Your task to perform on an android device: allow notifications from all sites in the chrome app Image 0: 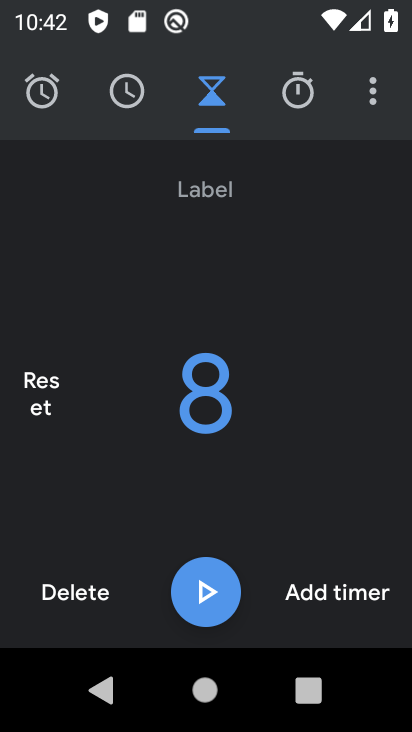
Step 0: press home button
Your task to perform on an android device: allow notifications from all sites in the chrome app Image 1: 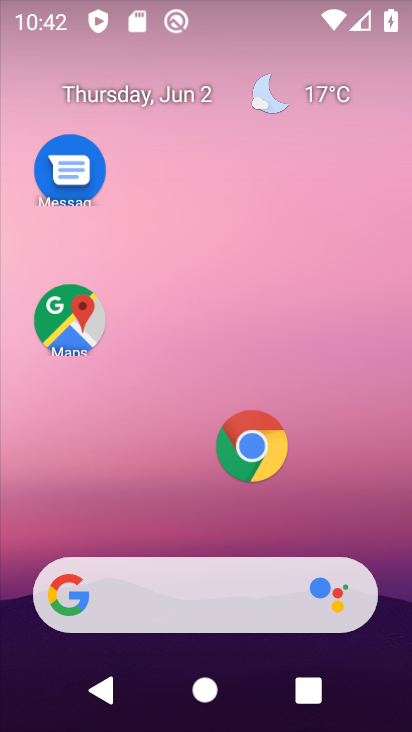
Step 1: drag from (325, 539) to (298, 109)
Your task to perform on an android device: allow notifications from all sites in the chrome app Image 2: 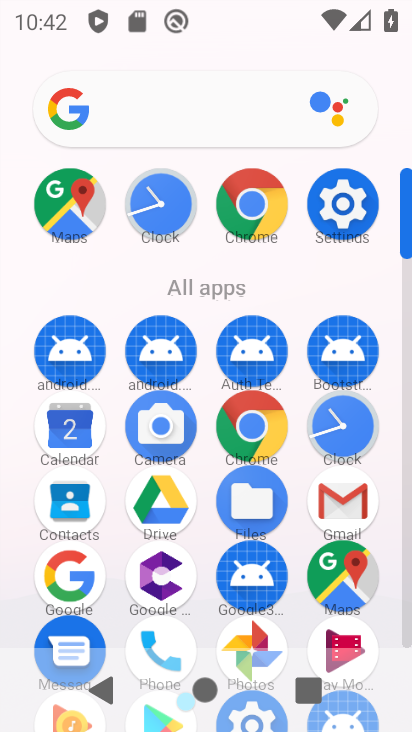
Step 2: click (244, 216)
Your task to perform on an android device: allow notifications from all sites in the chrome app Image 3: 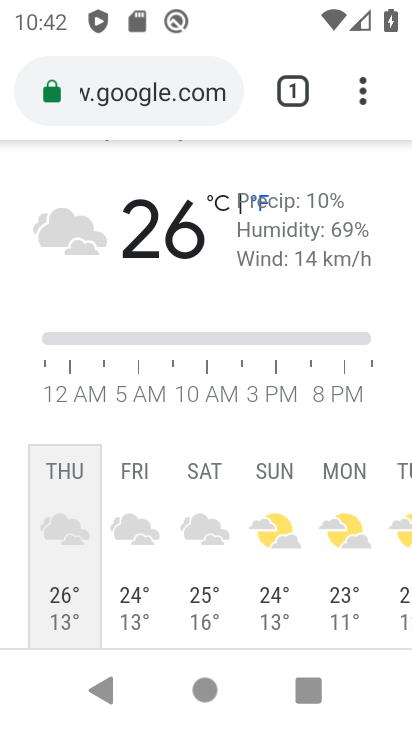
Step 3: drag from (362, 88) to (128, 485)
Your task to perform on an android device: allow notifications from all sites in the chrome app Image 4: 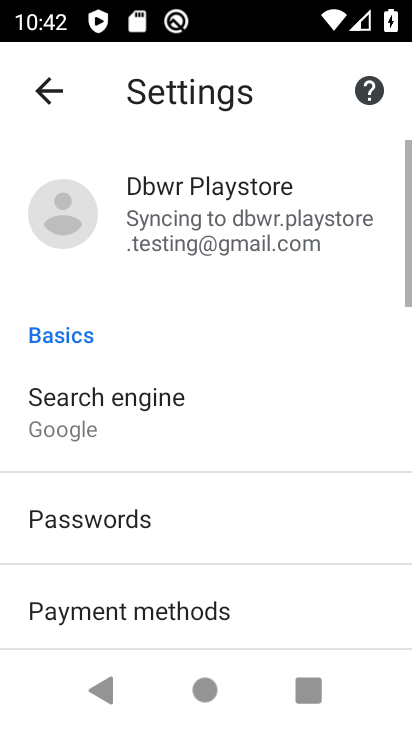
Step 4: drag from (165, 585) to (157, 25)
Your task to perform on an android device: allow notifications from all sites in the chrome app Image 5: 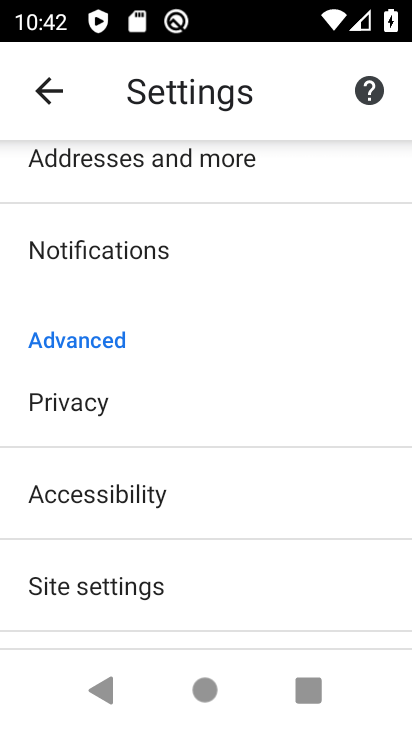
Step 5: drag from (175, 532) to (134, 388)
Your task to perform on an android device: allow notifications from all sites in the chrome app Image 6: 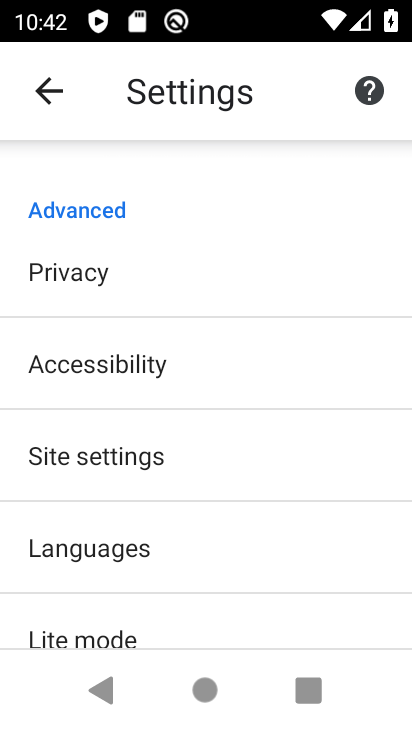
Step 6: click (152, 471)
Your task to perform on an android device: allow notifications from all sites in the chrome app Image 7: 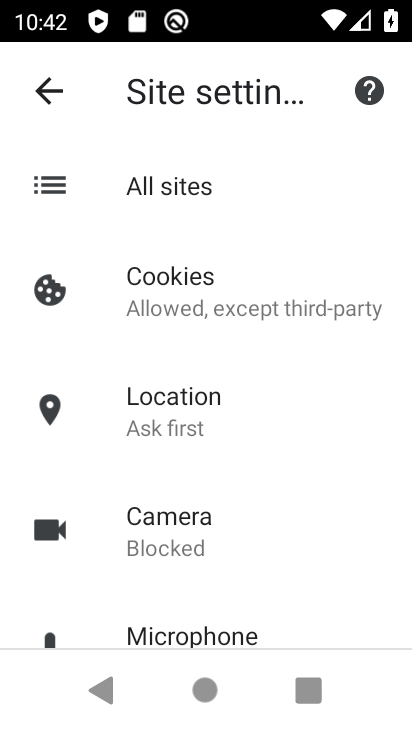
Step 7: click (210, 167)
Your task to perform on an android device: allow notifications from all sites in the chrome app Image 8: 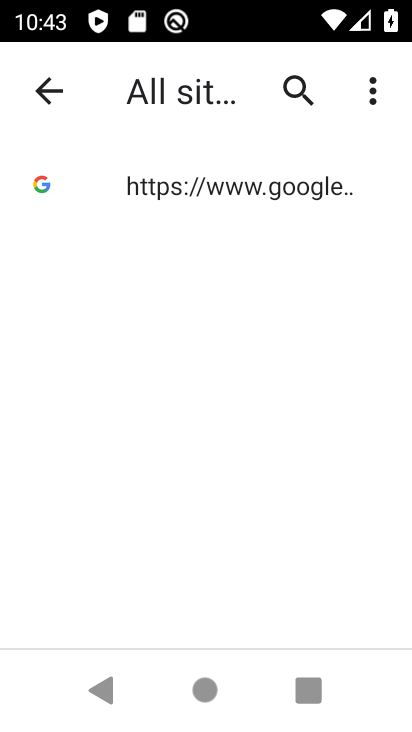
Step 8: click (183, 202)
Your task to perform on an android device: allow notifications from all sites in the chrome app Image 9: 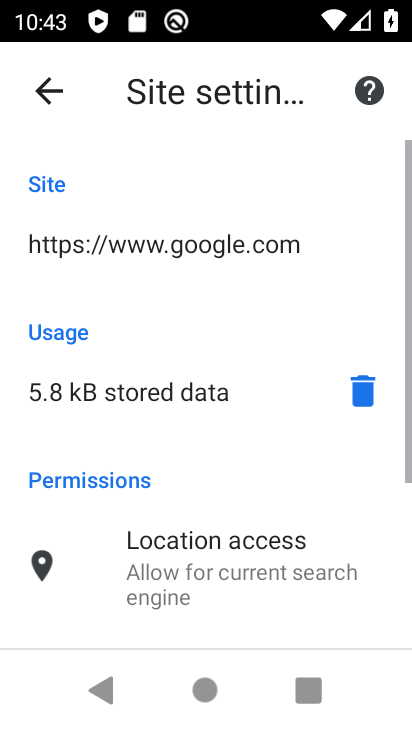
Step 9: drag from (178, 406) to (145, 10)
Your task to perform on an android device: allow notifications from all sites in the chrome app Image 10: 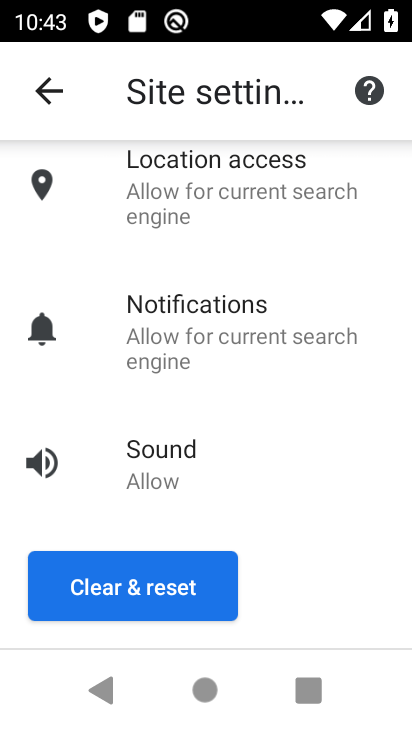
Step 10: click (171, 346)
Your task to perform on an android device: allow notifications from all sites in the chrome app Image 11: 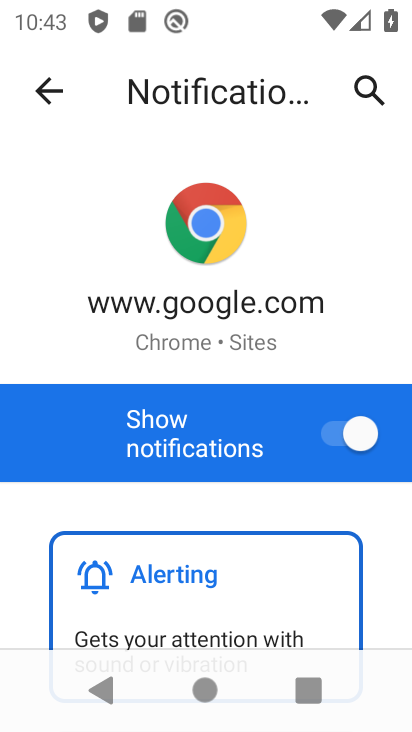
Step 11: drag from (295, 601) to (268, 293)
Your task to perform on an android device: allow notifications from all sites in the chrome app Image 12: 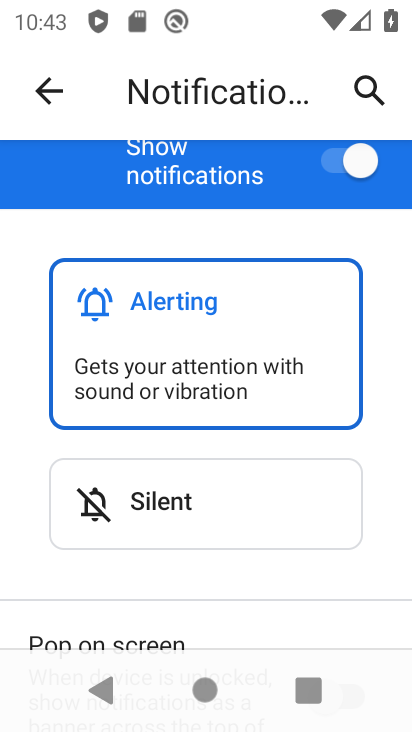
Step 12: drag from (265, 580) to (260, 242)
Your task to perform on an android device: allow notifications from all sites in the chrome app Image 13: 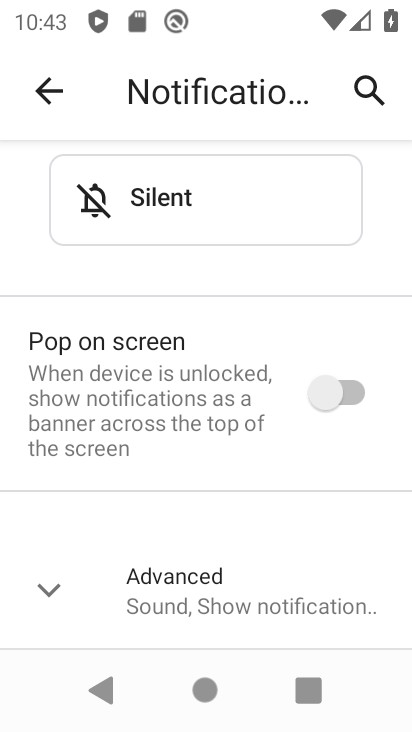
Step 13: drag from (261, 521) to (251, 348)
Your task to perform on an android device: allow notifications from all sites in the chrome app Image 14: 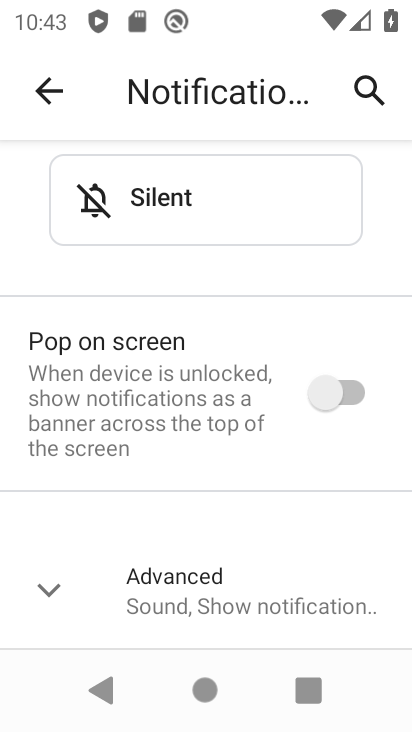
Step 14: drag from (253, 177) to (304, 731)
Your task to perform on an android device: allow notifications from all sites in the chrome app Image 15: 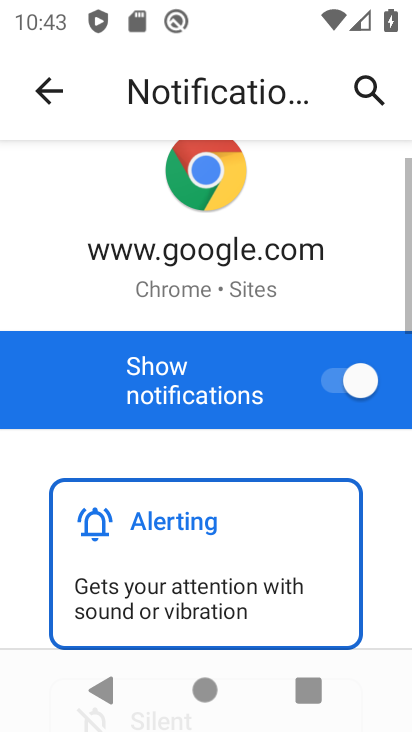
Step 15: drag from (304, 701) to (300, 195)
Your task to perform on an android device: allow notifications from all sites in the chrome app Image 16: 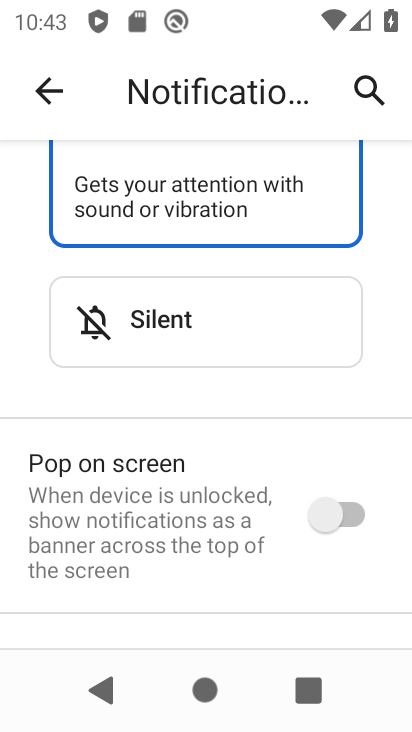
Step 16: click (281, 489)
Your task to perform on an android device: allow notifications from all sites in the chrome app Image 17: 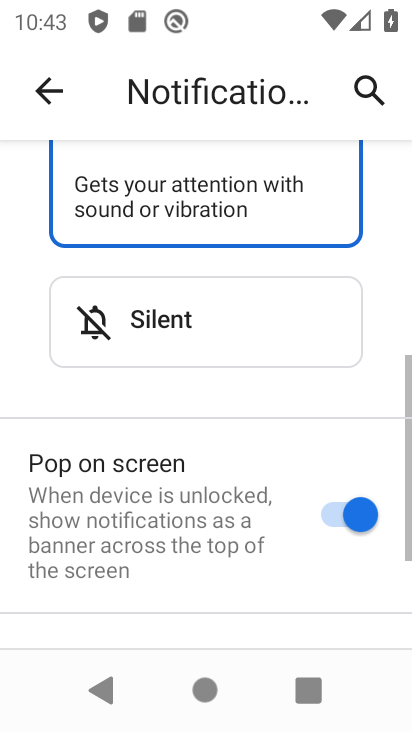
Step 17: drag from (281, 489) to (270, 230)
Your task to perform on an android device: allow notifications from all sites in the chrome app Image 18: 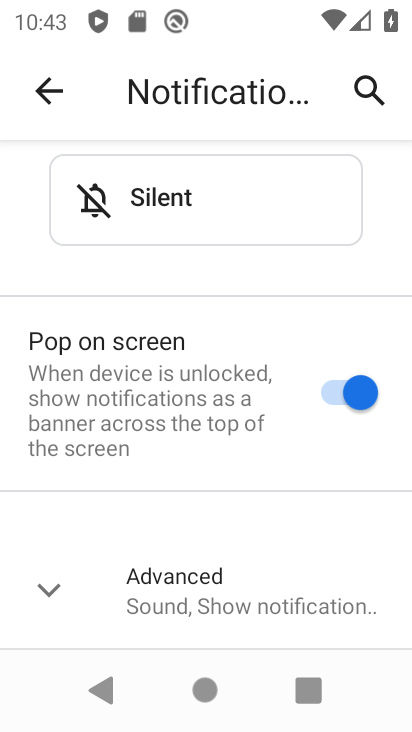
Step 18: click (267, 558)
Your task to perform on an android device: allow notifications from all sites in the chrome app Image 19: 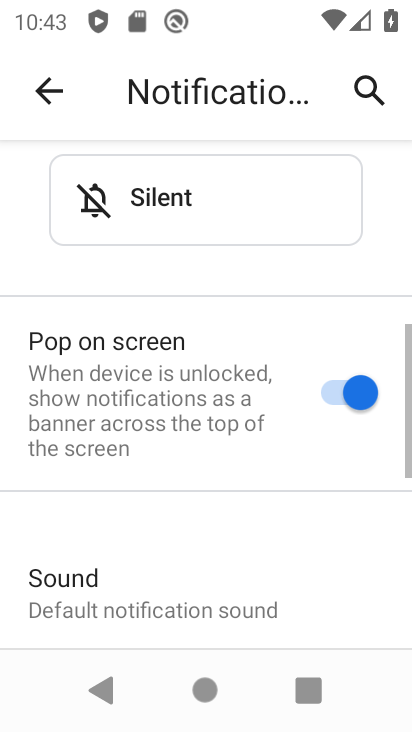
Step 19: drag from (267, 558) to (283, 197)
Your task to perform on an android device: allow notifications from all sites in the chrome app Image 20: 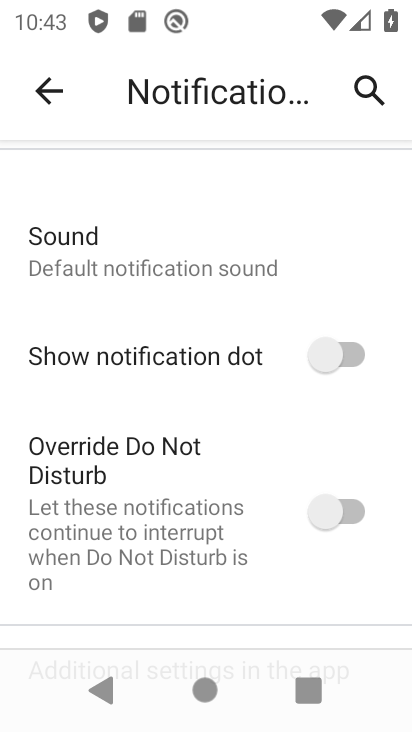
Step 20: click (209, 518)
Your task to perform on an android device: allow notifications from all sites in the chrome app Image 21: 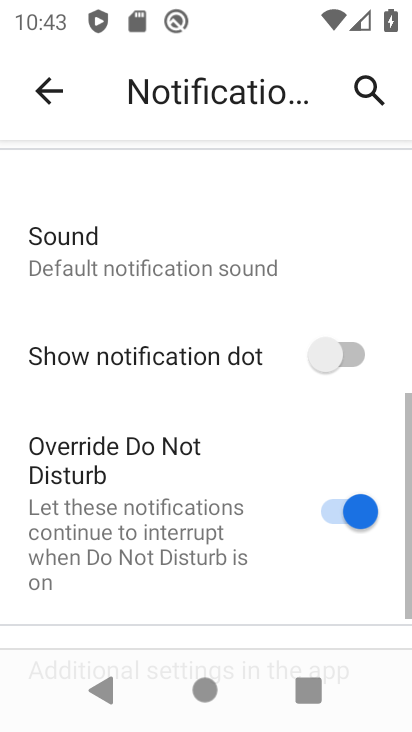
Step 21: click (262, 344)
Your task to perform on an android device: allow notifications from all sites in the chrome app Image 22: 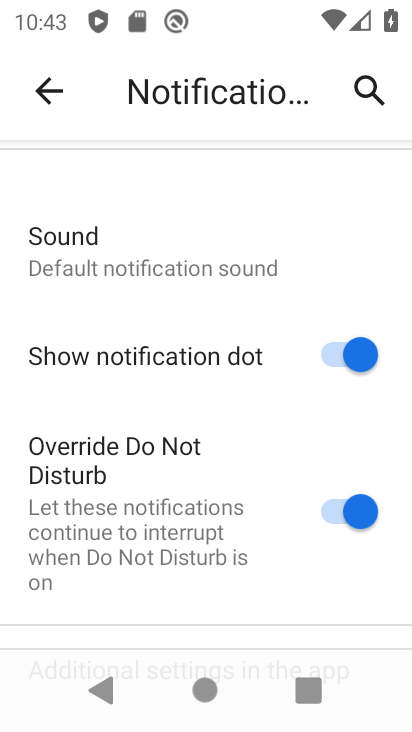
Step 22: task complete